Your task to perform on an android device: check android version Image 0: 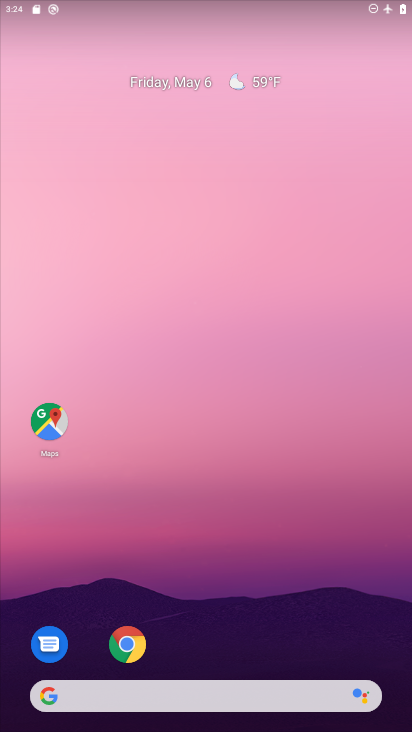
Step 0: drag from (216, 727) to (207, 106)
Your task to perform on an android device: check android version Image 1: 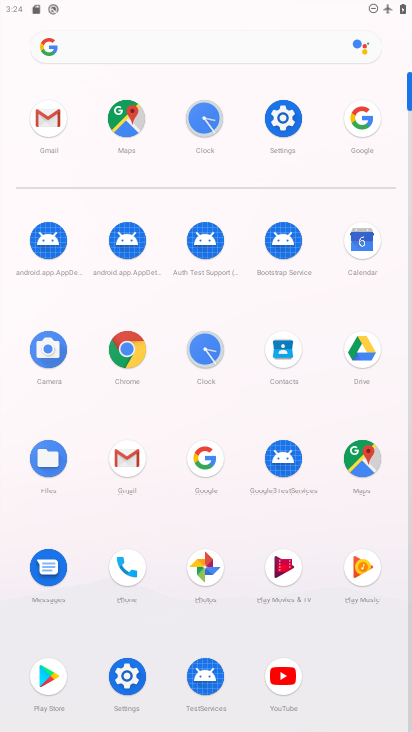
Step 1: click (284, 115)
Your task to perform on an android device: check android version Image 2: 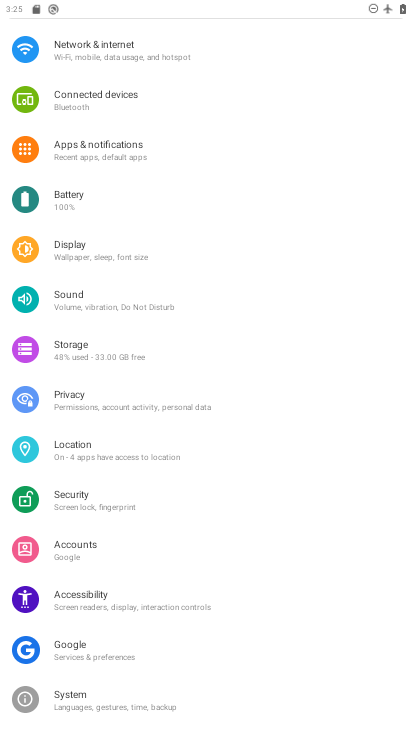
Step 2: drag from (129, 684) to (134, 324)
Your task to perform on an android device: check android version Image 3: 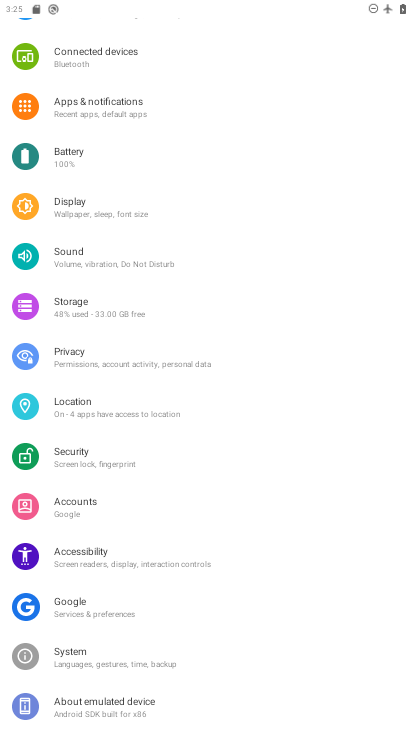
Step 3: click (113, 702)
Your task to perform on an android device: check android version Image 4: 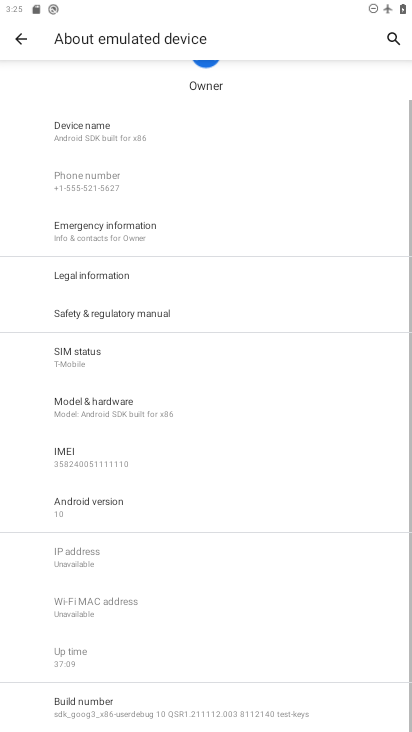
Step 4: click (98, 500)
Your task to perform on an android device: check android version Image 5: 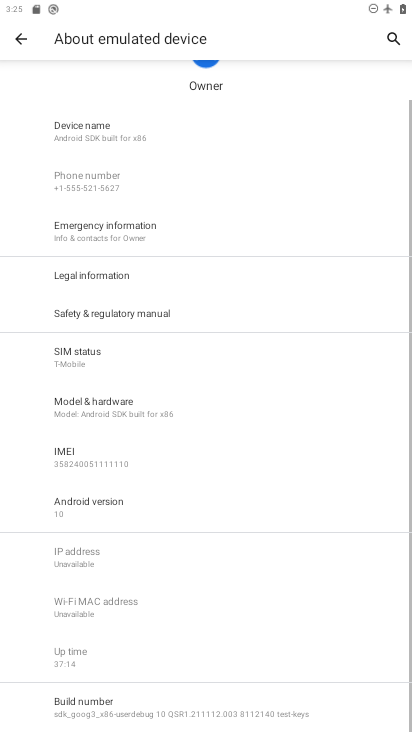
Step 5: click (67, 503)
Your task to perform on an android device: check android version Image 6: 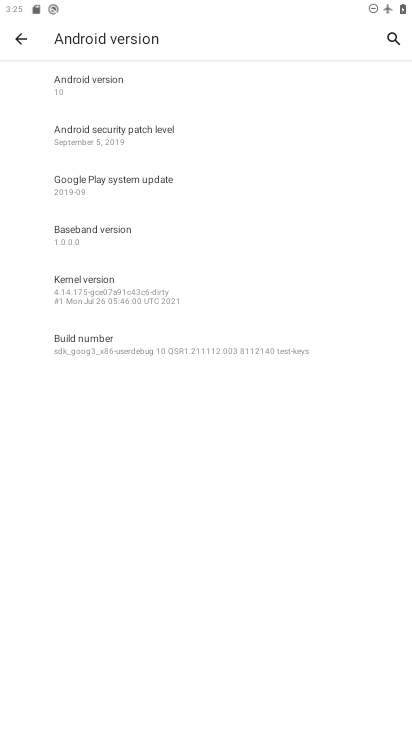
Step 6: task complete